Your task to perform on an android device: delete browsing data in the chrome app Image 0: 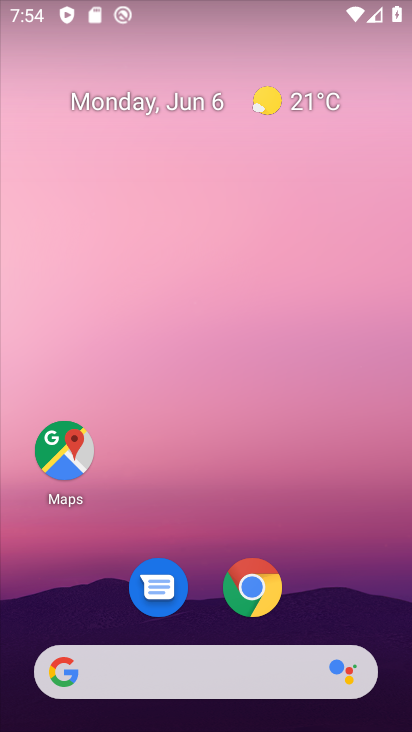
Step 0: click (252, 597)
Your task to perform on an android device: delete browsing data in the chrome app Image 1: 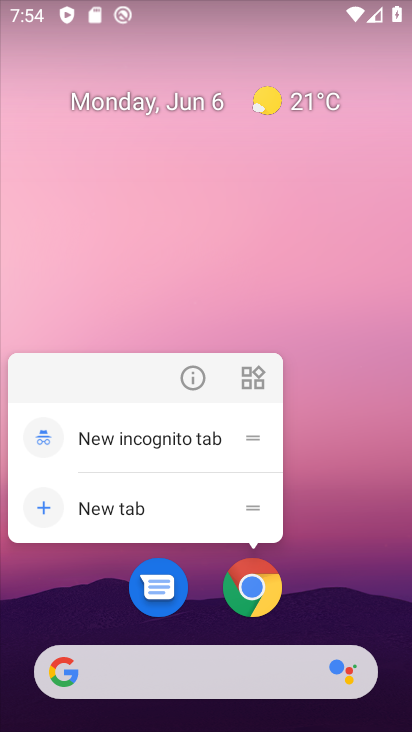
Step 1: click (249, 596)
Your task to perform on an android device: delete browsing data in the chrome app Image 2: 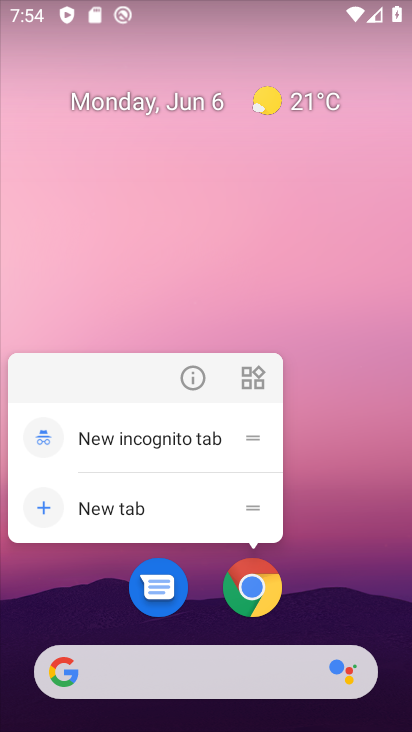
Step 2: click (249, 596)
Your task to perform on an android device: delete browsing data in the chrome app Image 3: 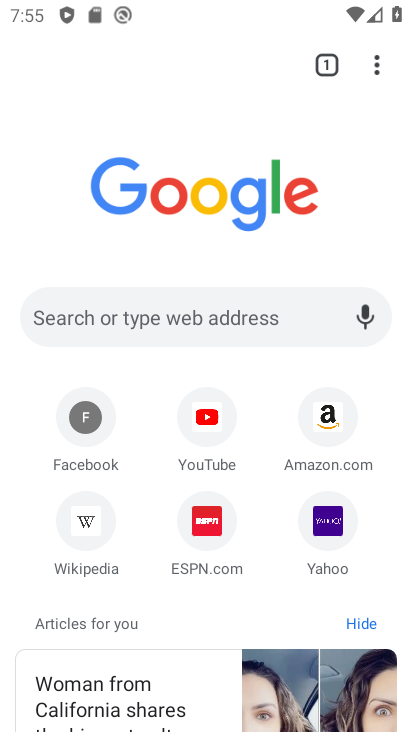
Step 3: click (373, 63)
Your task to perform on an android device: delete browsing data in the chrome app Image 4: 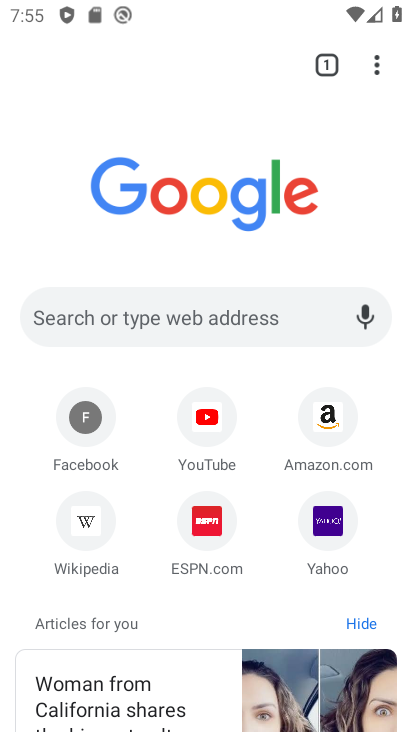
Step 4: click (373, 56)
Your task to perform on an android device: delete browsing data in the chrome app Image 5: 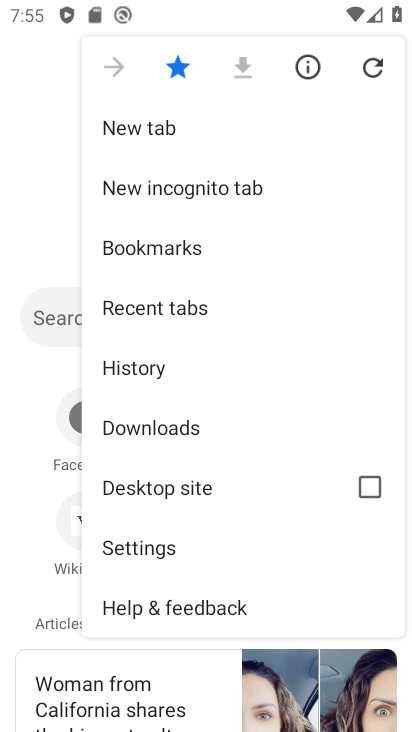
Step 5: click (170, 361)
Your task to perform on an android device: delete browsing data in the chrome app Image 6: 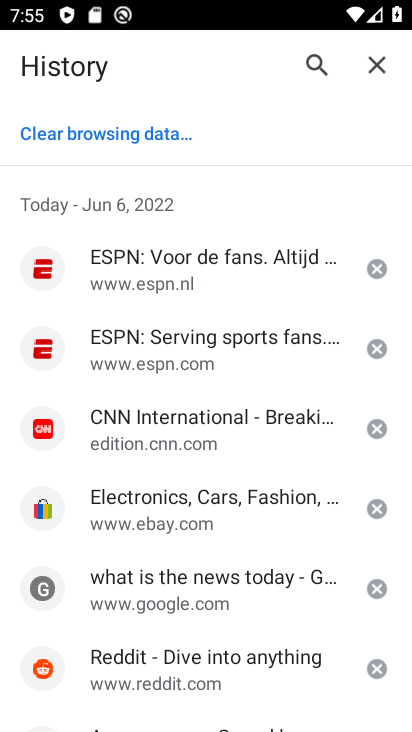
Step 6: click (128, 139)
Your task to perform on an android device: delete browsing data in the chrome app Image 7: 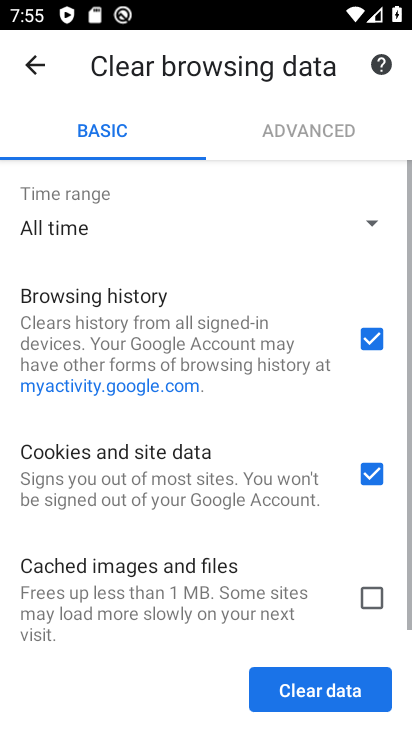
Step 7: click (279, 689)
Your task to perform on an android device: delete browsing data in the chrome app Image 8: 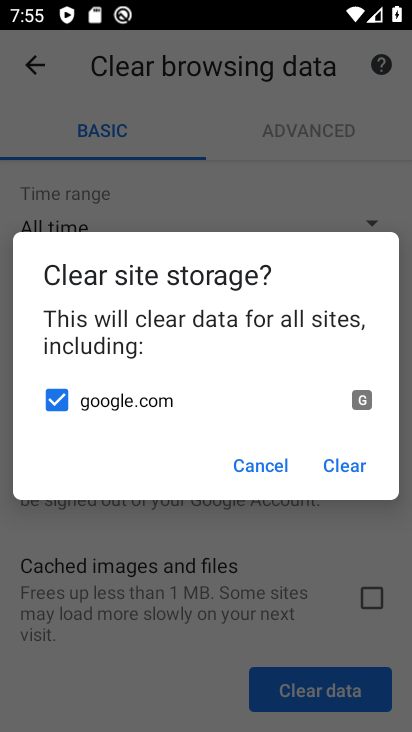
Step 8: click (356, 465)
Your task to perform on an android device: delete browsing data in the chrome app Image 9: 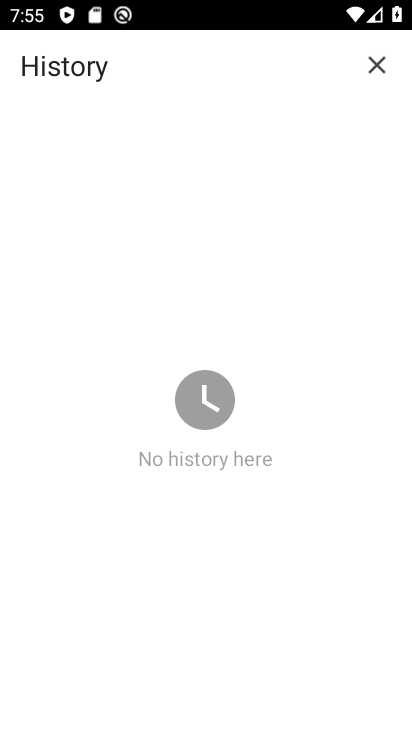
Step 9: task complete